Your task to perform on an android device: toggle data saver in the chrome app Image 0: 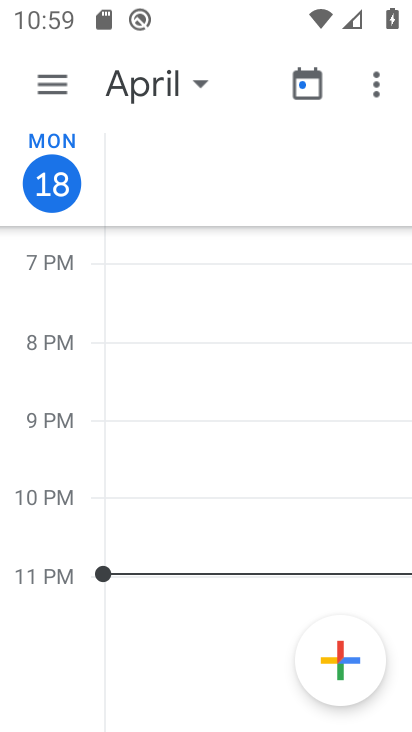
Step 0: press home button
Your task to perform on an android device: toggle data saver in the chrome app Image 1: 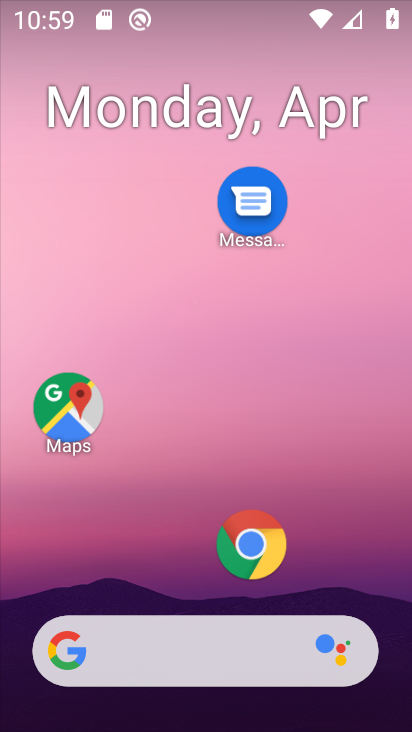
Step 1: click (237, 533)
Your task to perform on an android device: toggle data saver in the chrome app Image 2: 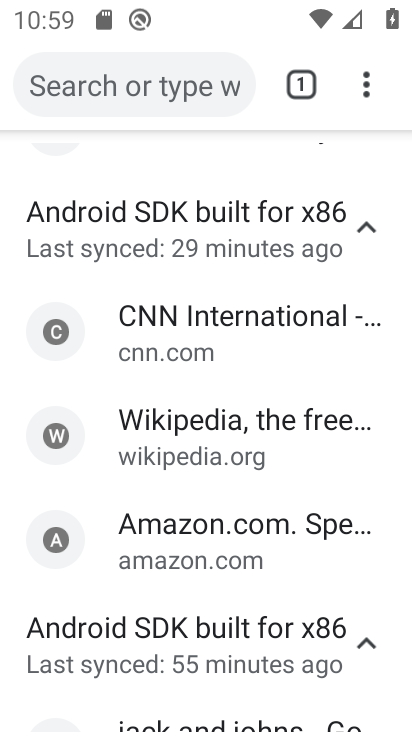
Step 2: click (365, 76)
Your task to perform on an android device: toggle data saver in the chrome app Image 3: 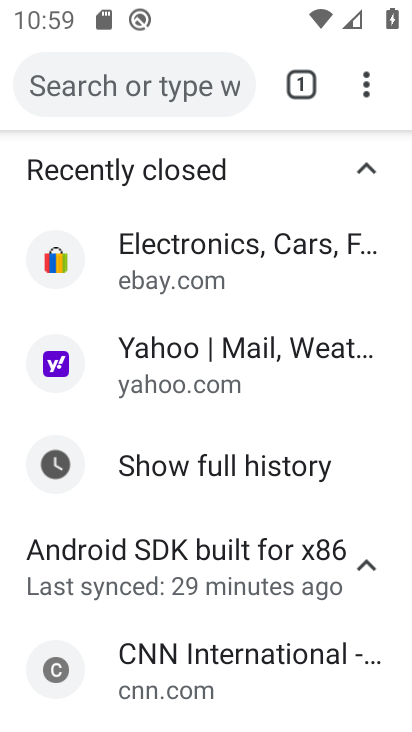
Step 3: click (366, 84)
Your task to perform on an android device: toggle data saver in the chrome app Image 4: 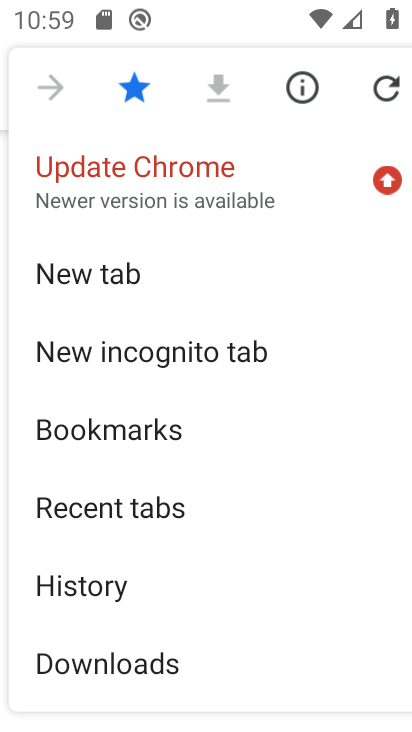
Step 4: drag from (190, 628) to (257, 221)
Your task to perform on an android device: toggle data saver in the chrome app Image 5: 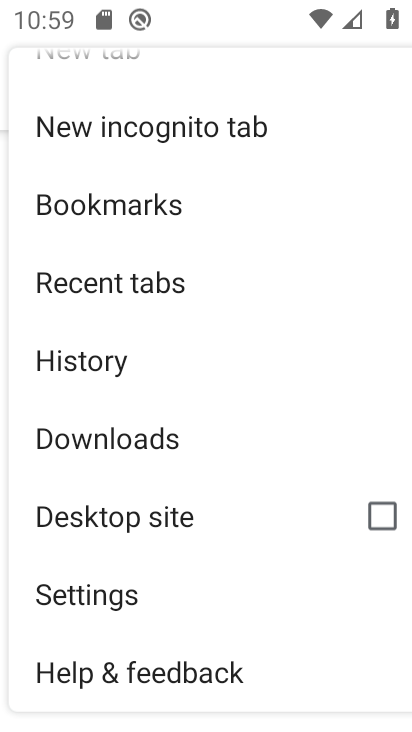
Step 5: click (136, 593)
Your task to perform on an android device: toggle data saver in the chrome app Image 6: 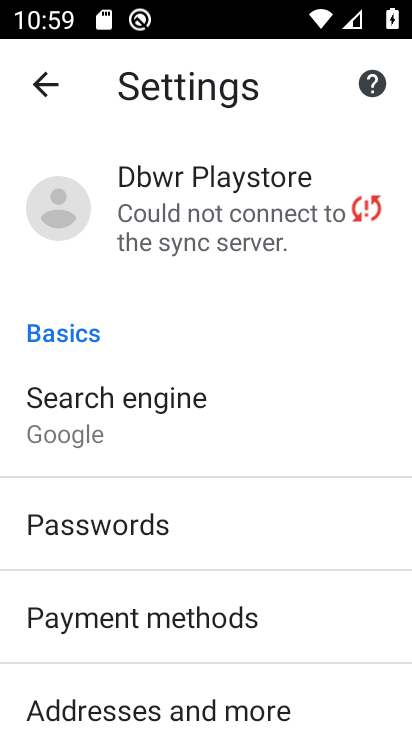
Step 6: drag from (259, 659) to (307, 215)
Your task to perform on an android device: toggle data saver in the chrome app Image 7: 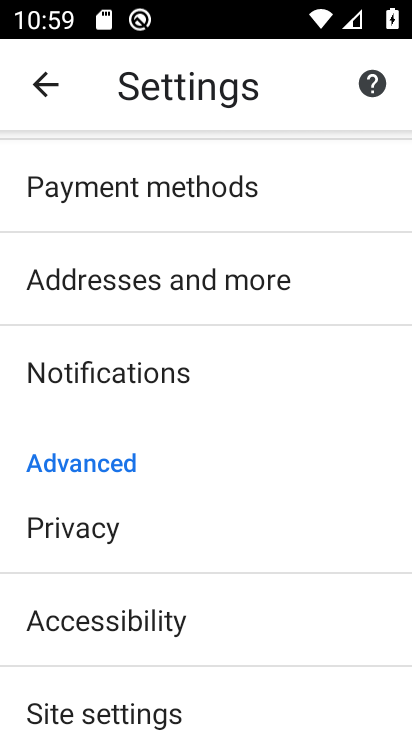
Step 7: drag from (205, 674) to (239, 167)
Your task to perform on an android device: toggle data saver in the chrome app Image 8: 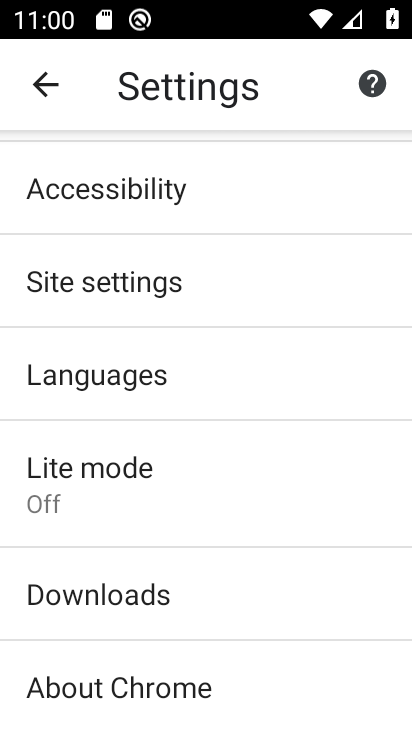
Step 8: click (147, 500)
Your task to perform on an android device: toggle data saver in the chrome app Image 9: 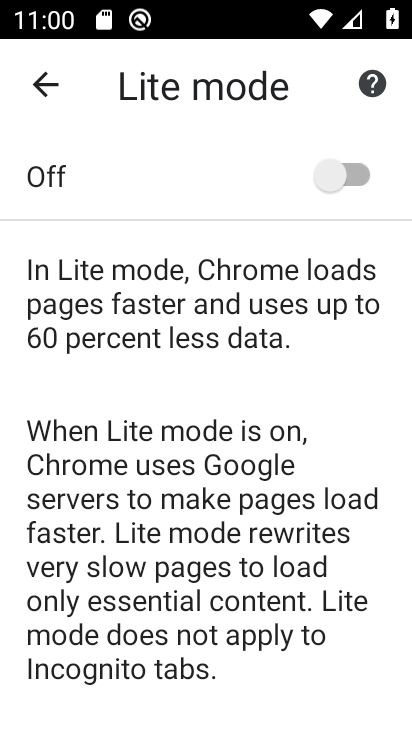
Step 9: click (352, 166)
Your task to perform on an android device: toggle data saver in the chrome app Image 10: 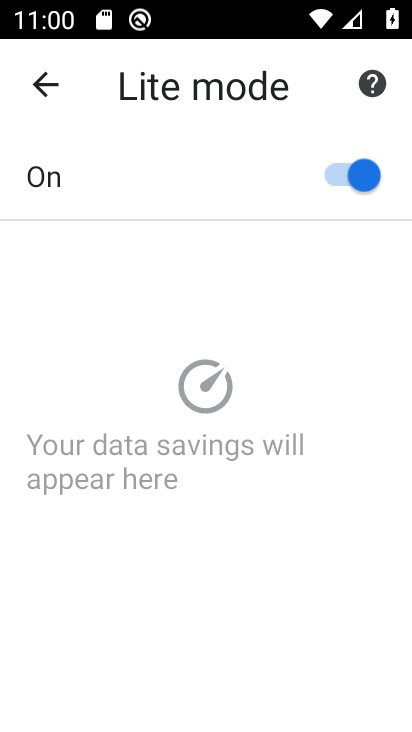
Step 10: task complete